Your task to perform on an android device: Open battery settings Image 0: 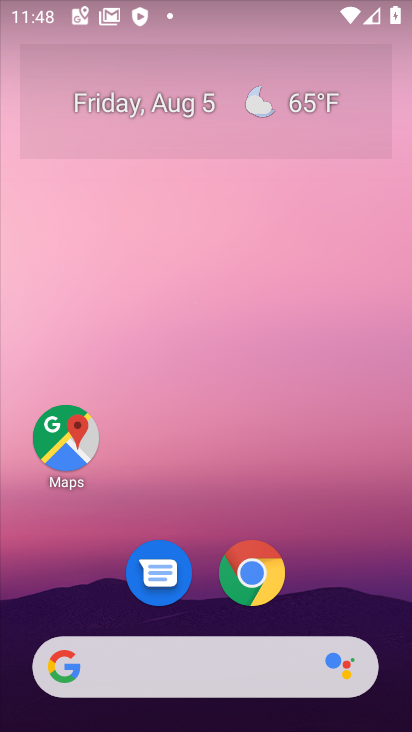
Step 0: drag from (205, 491) to (202, 194)
Your task to perform on an android device: Open battery settings Image 1: 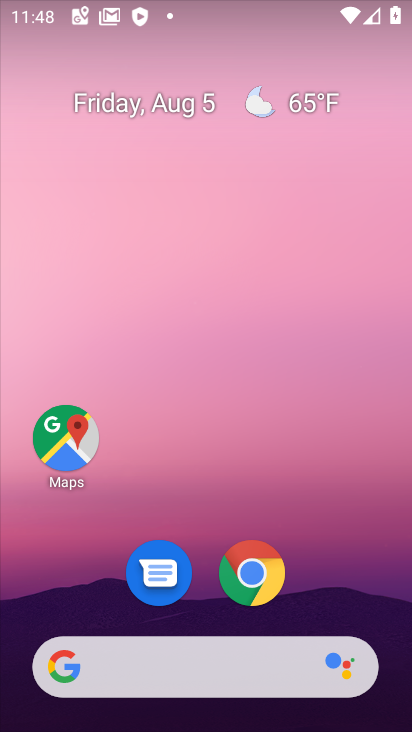
Step 1: drag from (219, 501) to (213, 215)
Your task to perform on an android device: Open battery settings Image 2: 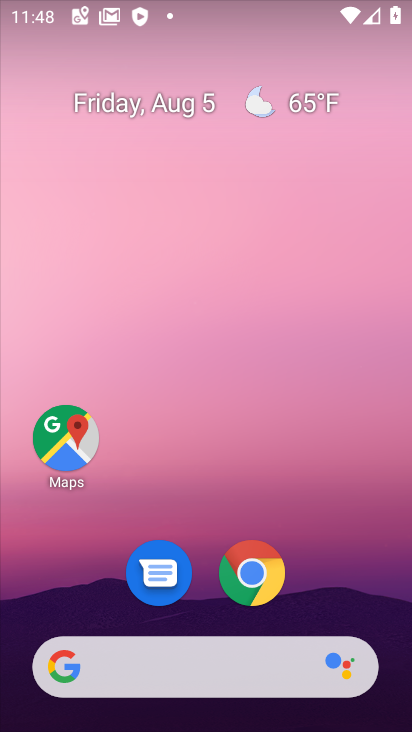
Step 2: drag from (209, 513) to (211, 158)
Your task to perform on an android device: Open battery settings Image 3: 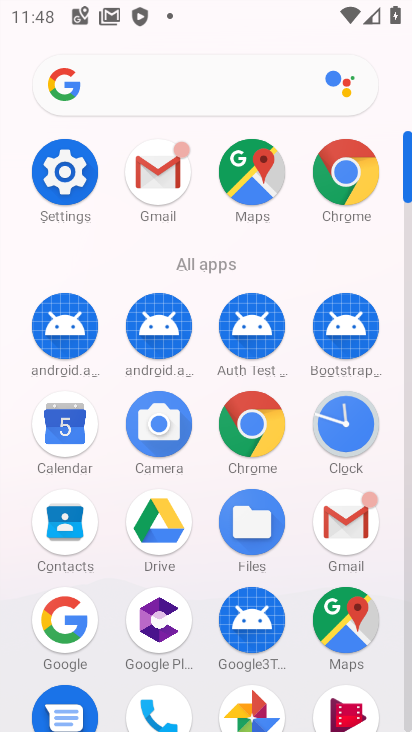
Step 3: click (83, 176)
Your task to perform on an android device: Open battery settings Image 4: 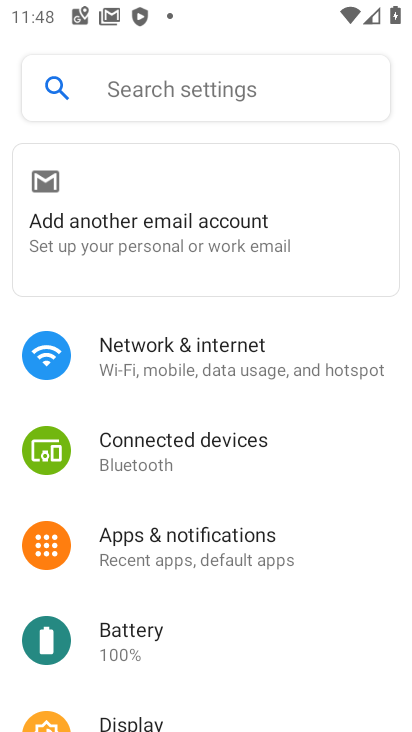
Step 4: task complete